Your task to perform on an android device: Open Google Maps Image 0: 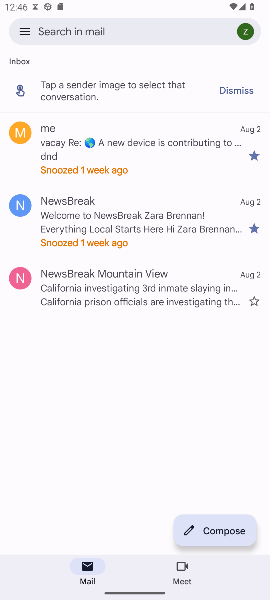
Step 0: press home button
Your task to perform on an android device: Open Google Maps Image 1: 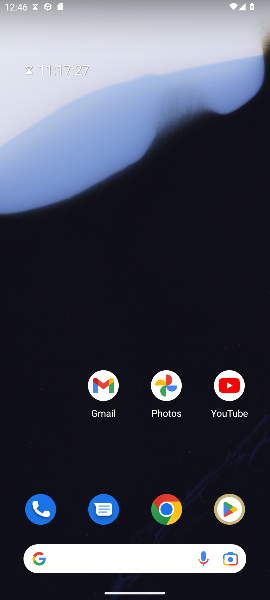
Step 1: drag from (144, 474) to (166, 98)
Your task to perform on an android device: Open Google Maps Image 2: 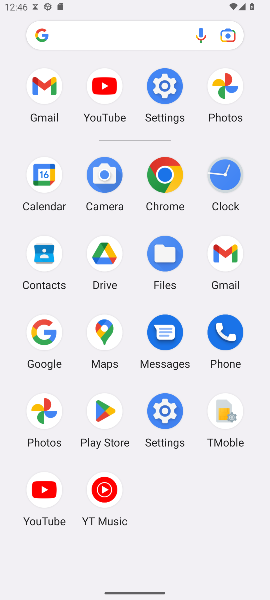
Step 2: click (108, 343)
Your task to perform on an android device: Open Google Maps Image 3: 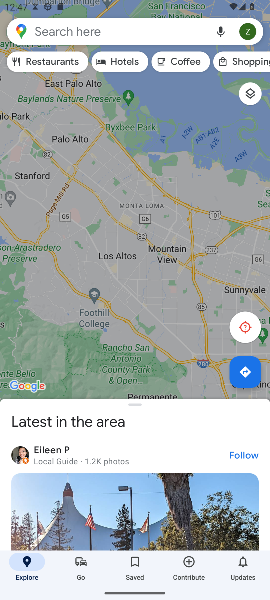
Step 3: task complete